Your task to perform on an android device: Play the last video I watched on Youtube Image 0: 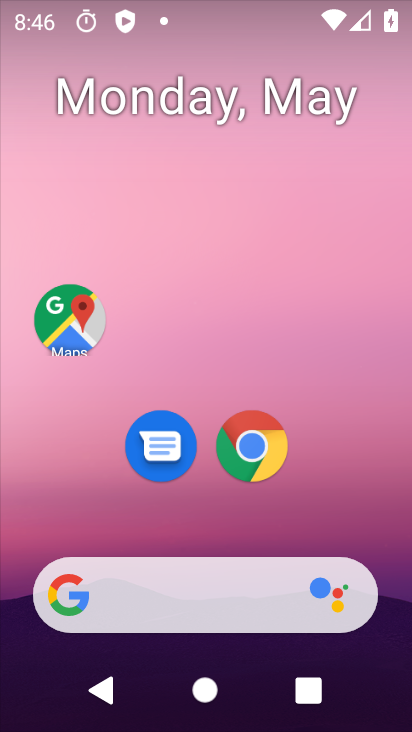
Step 0: drag from (344, 456) to (272, 35)
Your task to perform on an android device: Play the last video I watched on Youtube Image 1: 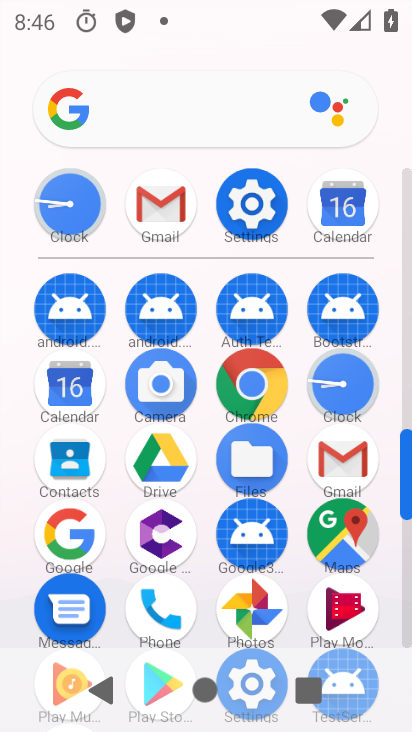
Step 1: drag from (410, 487) to (398, 376)
Your task to perform on an android device: Play the last video I watched on Youtube Image 2: 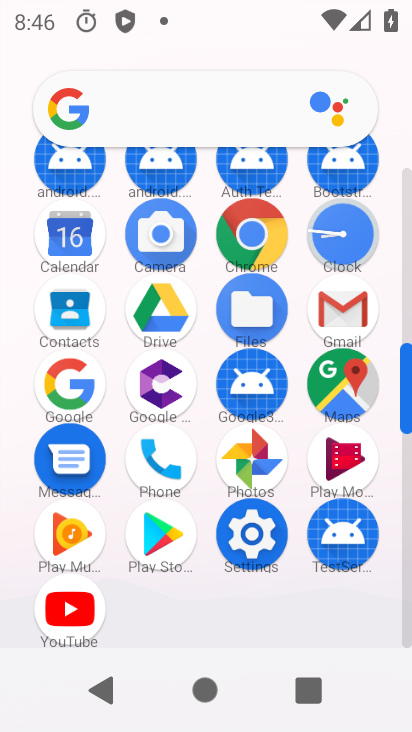
Step 2: click (70, 623)
Your task to perform on an android device: Play the last video I watched on Youtube Image 3: 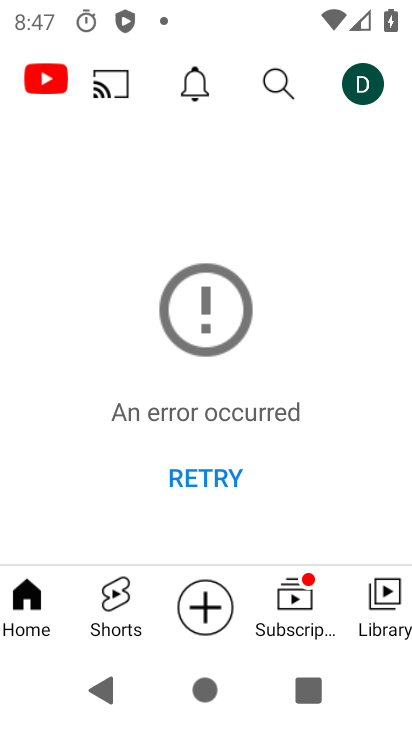
Step 3: click (383, 619)
Your task to perform on an android device: Play the last video I watched on Youtube Image 4: 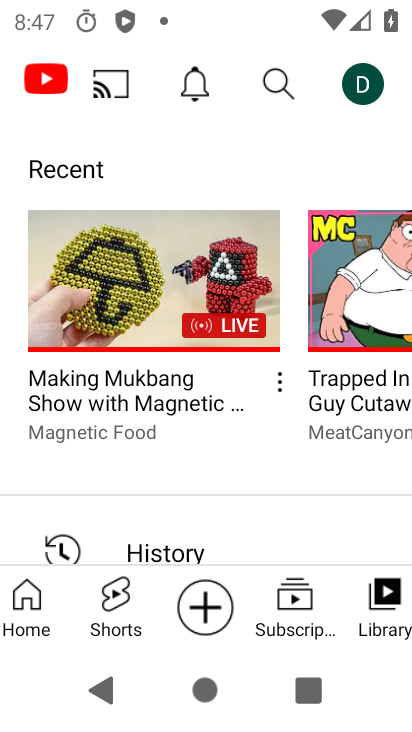
Step 4: drag from (129, 424) to (117, 213)
Your task to perform on an android device: Play the last video I watched on Youtube Image 5: 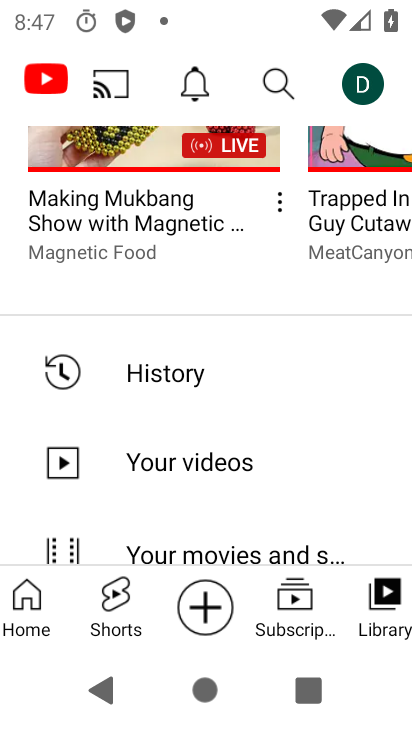
Step 5: click (136, 375)
Your task to perform on an android device: Play the last video I watched on Youtube Image 6: 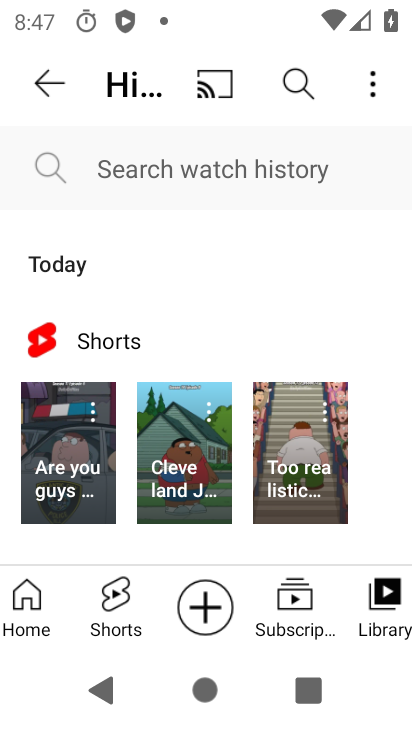
Step 6: drag from (158, 449) to (117, 79)
Your task to perform on an android device: Play the last video I watched on Youtube Image 7: 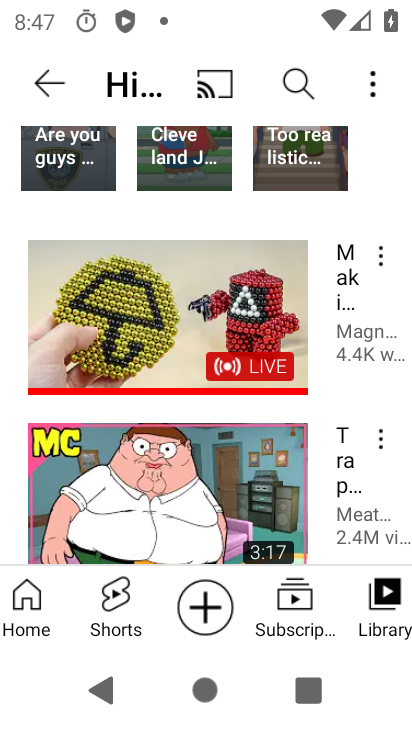
Step 7: click (126, 328)
Your task to perform on an android device: Play the last video I watched on Youtube Image 8: 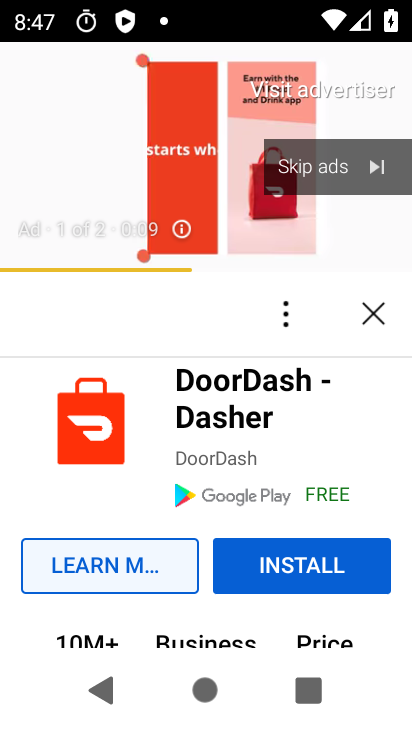
Step 8: click (348, 163)
Your task to perform on an android device: Play the last video I watched on Youtube Image 9: 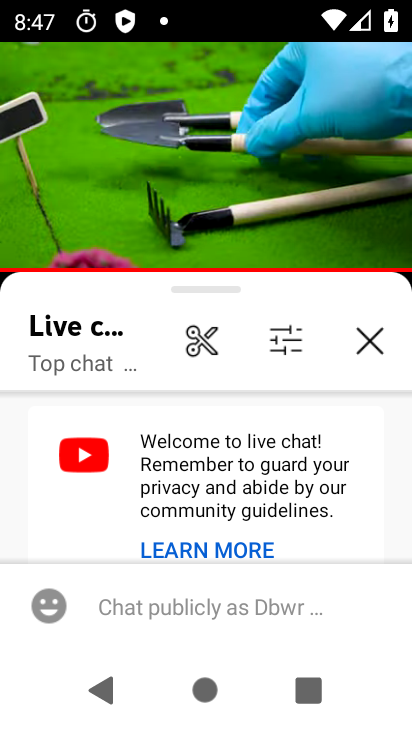
Step 9: click (197, 176)
Your task to perform on an android device: Play the last video I watched on Youtube Image 10: 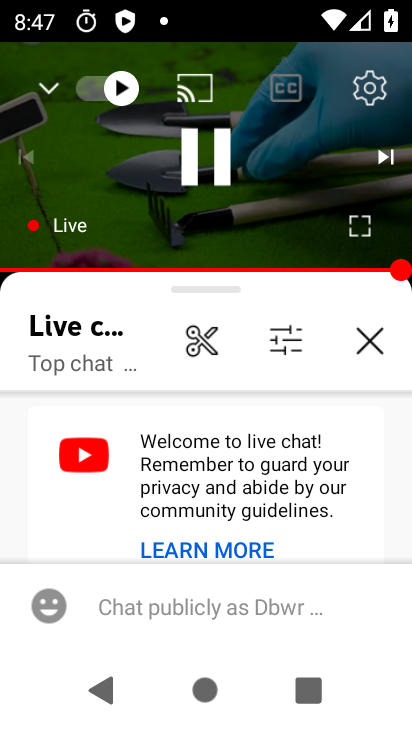
Step 10: click (191, 154)
Your task to perform on an android device: Play the last video I watched on Youtube Image 11: 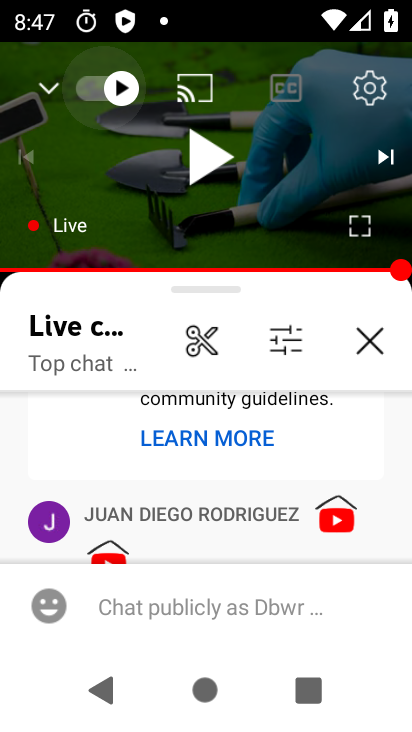
Step 11: task complete